Your task to perform on an android device: turn off improve location accuracy Image 0: 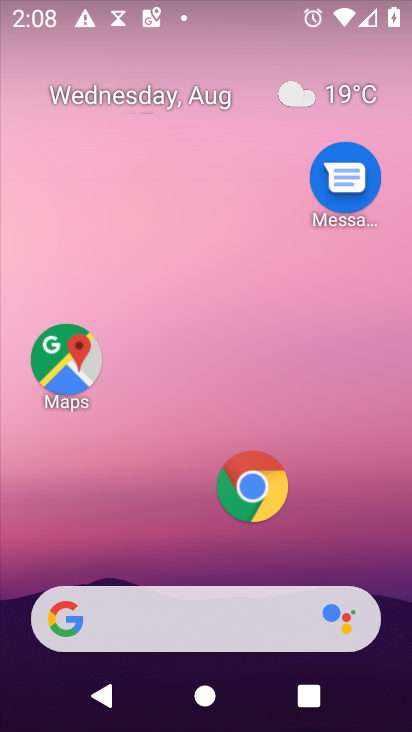
Step 0: drag from (144, 567) to (244, 1)
Your task to perform on an android device: turn off improve location accuracy Image 1: 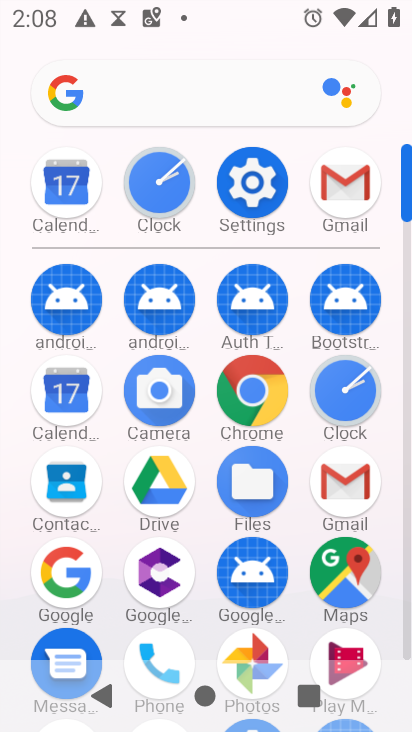
Step 1: click (248, 180)
Your task to perform on an android device: turn off improve location accuracy Image 2: 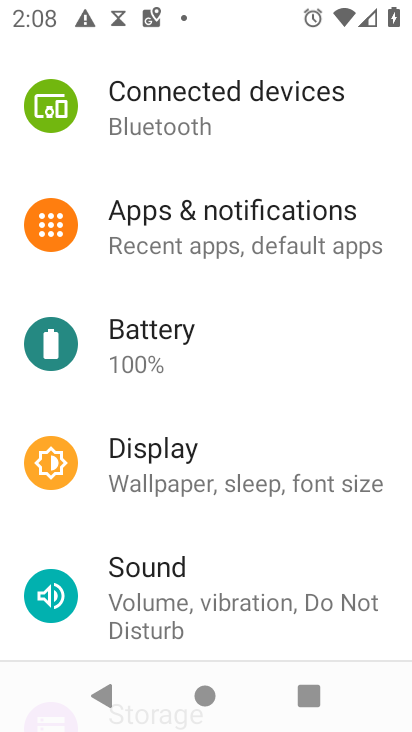
Step 2: drag from (182, 568) to (324, 11)
Your task to perform on an android device: turn off improve location accuracy Image 3: 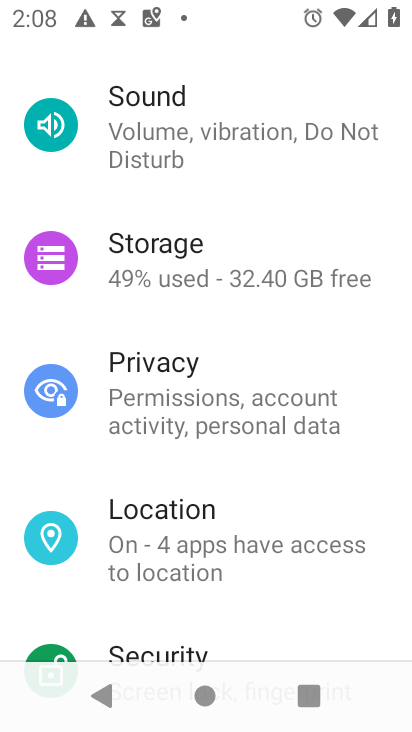
Step 3: click (184, 529)
Your task to perform on an android device: turn off improve location accuracy Image 4: 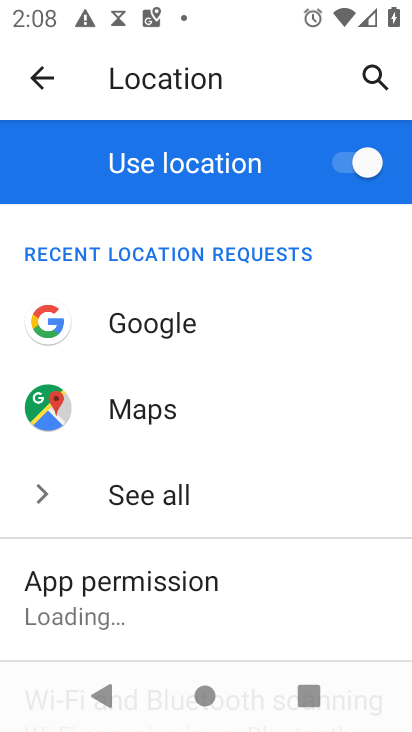
Step 4: drag from (143, 604) to (274, 87)
Your task to perform on an android device: turn off improve location accuracy Image 5: 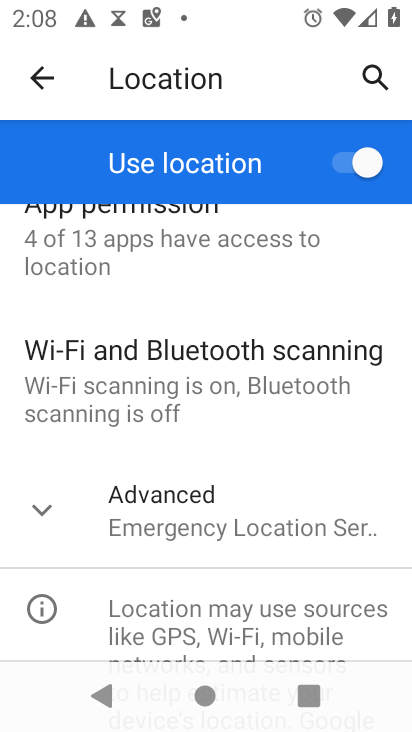
Step 5: click (171, 531)
Your task to perform on an android device: turn off improve location accuracy Image 6: 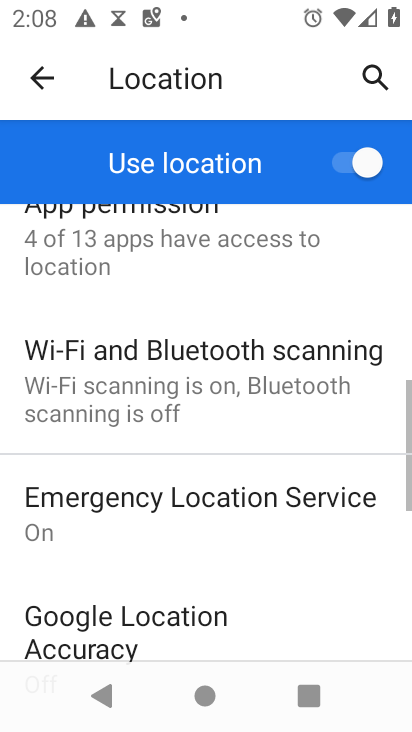
Step 6: drag from (169, 609) to (245, 204)
Your task to perform on an android device: turn off improve location accuracy Image 7: 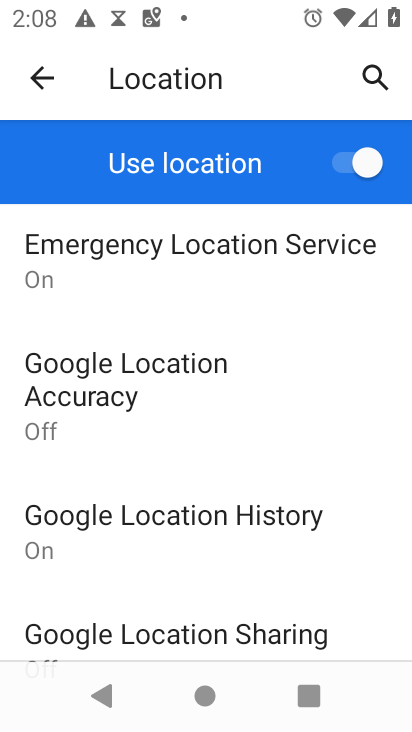
Step 7: click (139, 384)
Your task to perform on an android device: turn off improve location accuracy Image 8: 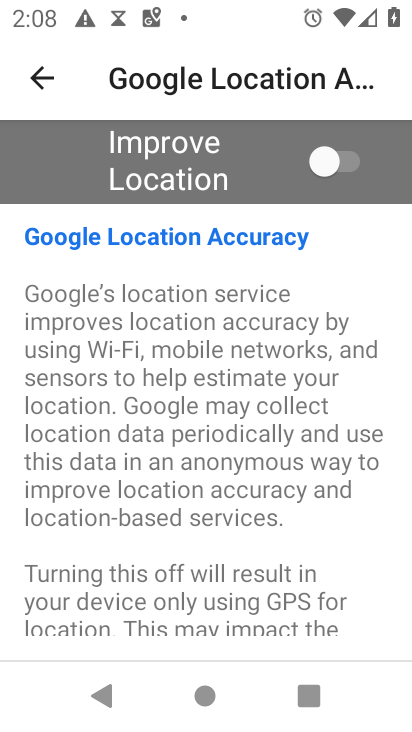
Step 8: task complete